Your task to perform on an android device: change notification settings in the gmail app Image 0: 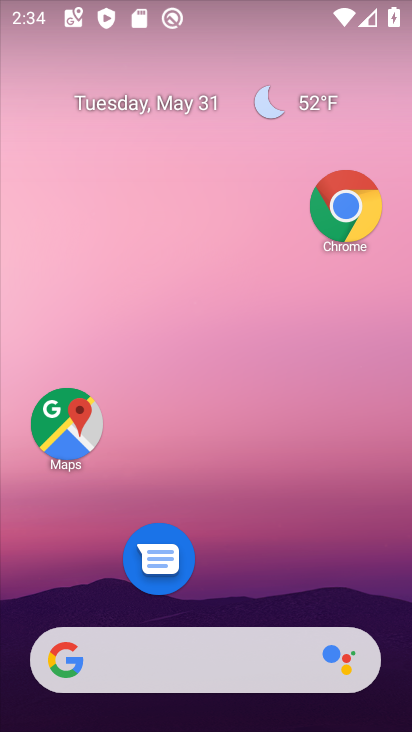
Step 0: drag from (273, 597) to (151, 97)
Your task to perform on an android device: change notification settings in the gmail app Image 1: 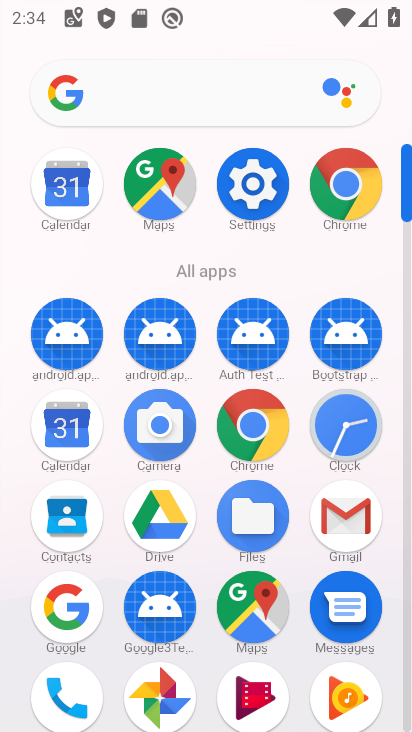
Step 1: click (341, 517)
Your task to perform on an android device: change notification settings in the gmail app Image 2: 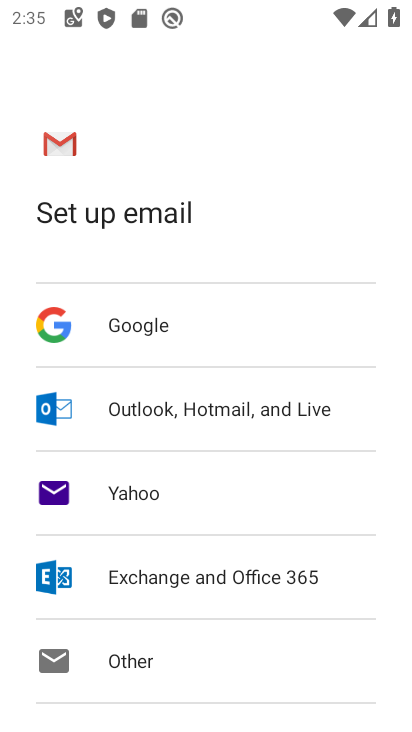
Step 2: click (411, 710)
Your task to perform on an android device: change notification settings in the gmail app Image 3: 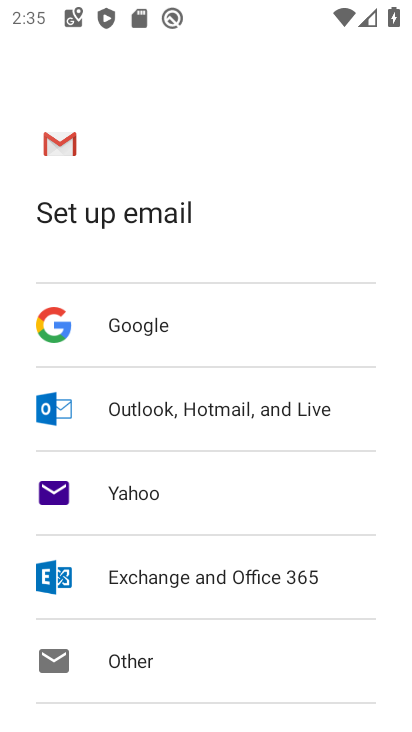
Step 3: press back button
Your task to perform on an android device: change notification settings in the gmail app Image 4: 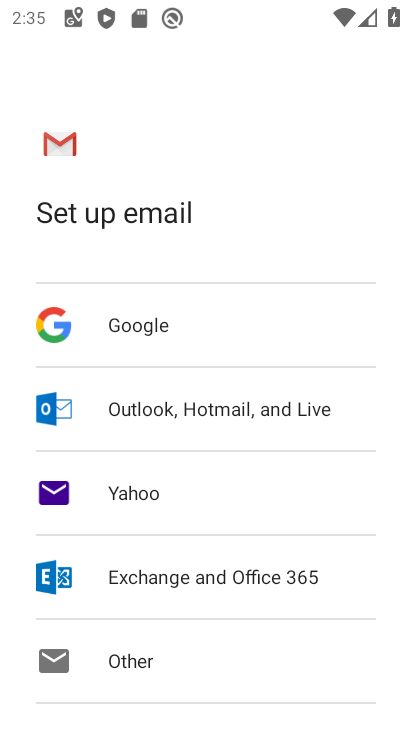
Step 4: drag from (411, 710) to (411, 447)
Your task to perform on an android device: change notification settings in the gmail app Image 5: 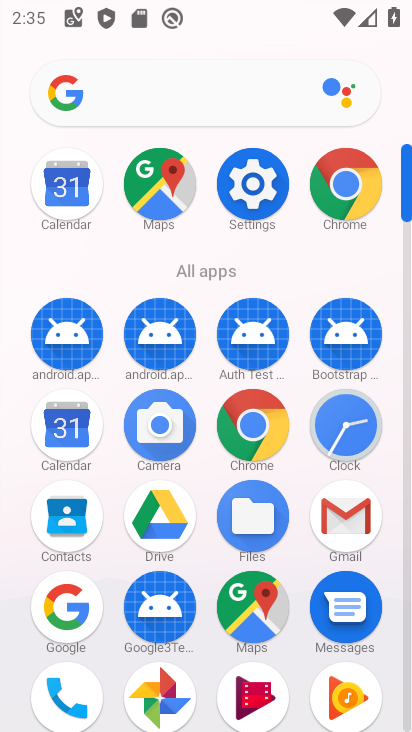
Step 5: click (353, 515)
Your task to perform on an android device: change notification settings in the gmail app Image 6: 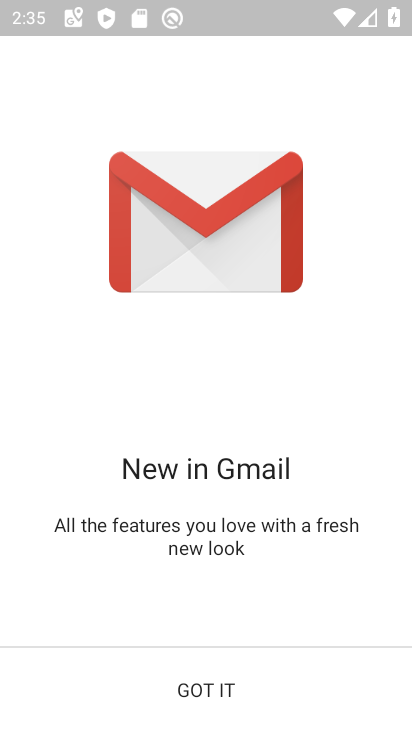
Step 6: click (238, 686)
Your task to perform on an android device: change notification settings in the gmail app Image 7: 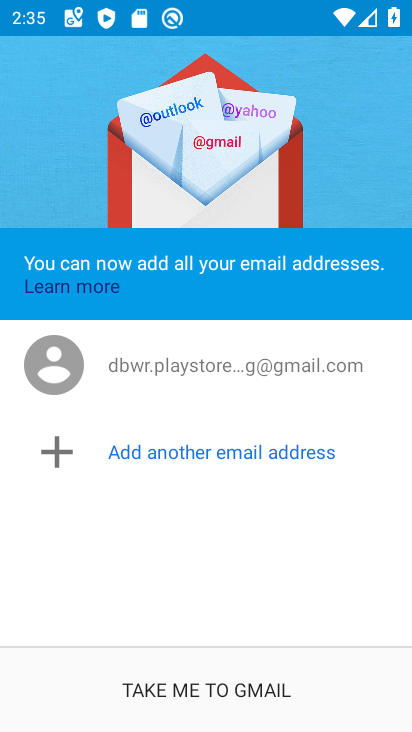
Step 7: click (164, 684)
Your task to perform on an android device: change notification settings in the gmail app Image 8: 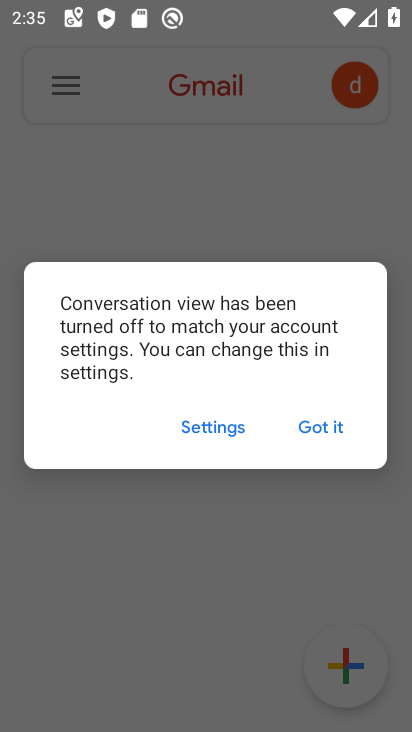
Step 8: click (344, 425)
Your task to perform on an android device: change notification settings in the gmail app Image 9: 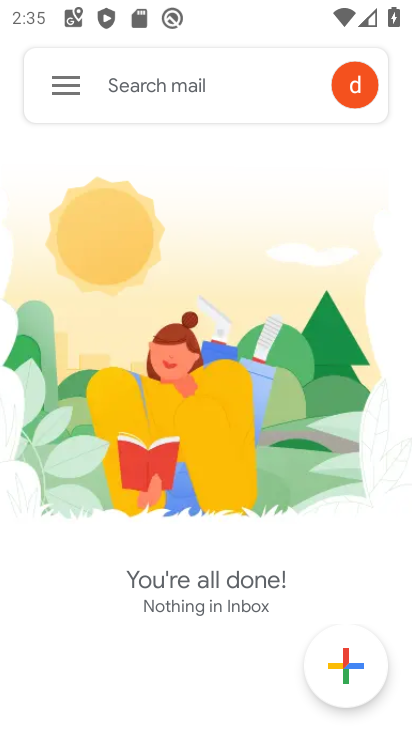
Step 9: click (81, 104)
Your task to perform on an android device: change notification settings in the gmail app Image 10: 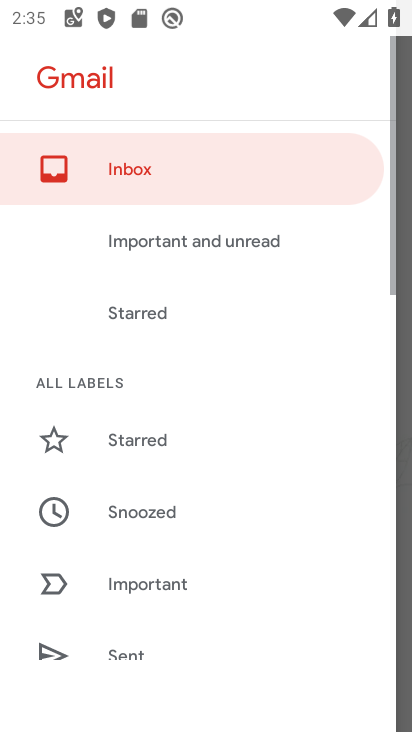
Step 10: drag from (141, 508) to (188, 76)
Your task to perform on an android device: change notification settings in the gmail app Image 11: 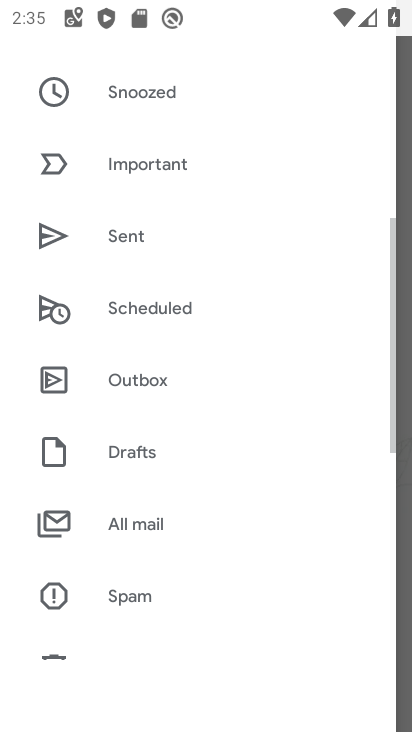
Step 11: drag from (227, 520) to (206, 129)
Your task to perform on an android device: change notification settings in the gmail app Image 12: 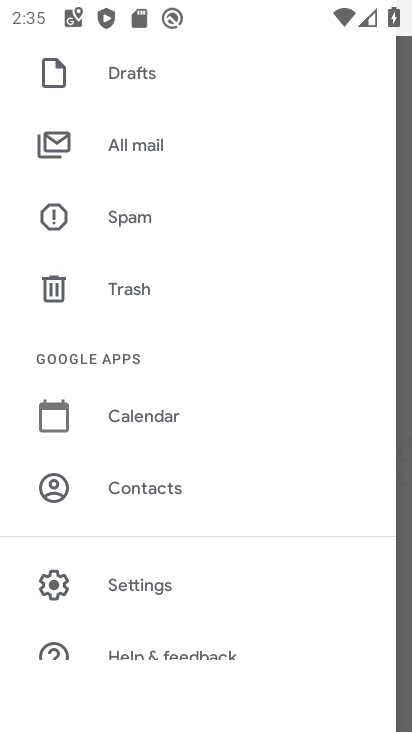
Step 12: click (163, 598)
Your task to perform on an android device: change notification settings in the gmail app Image 13: 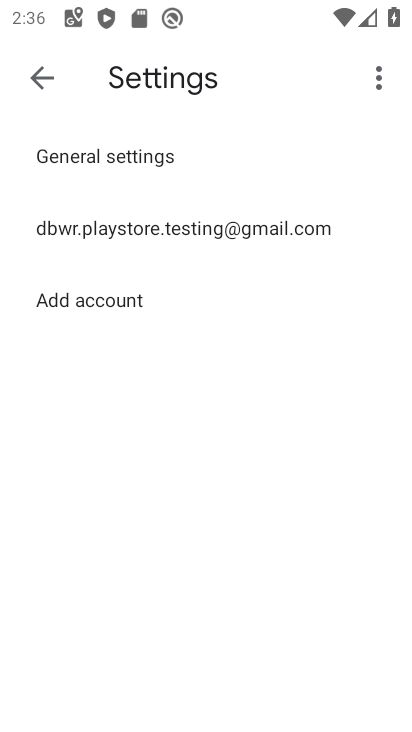
Step 13: click (238, 238)
Your task to perform on an android device: change notification settings in the gmail app Image 14: 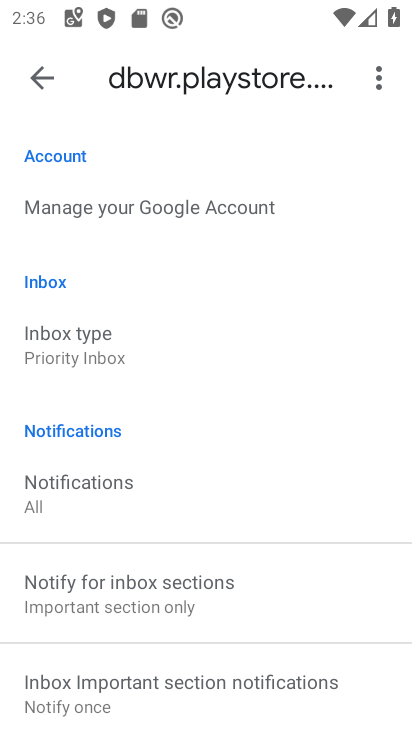
Step 14: drag from (170, 684) to (184, 377)
Your task to perform on an android device: change notification settings in the gmail app Image 15: 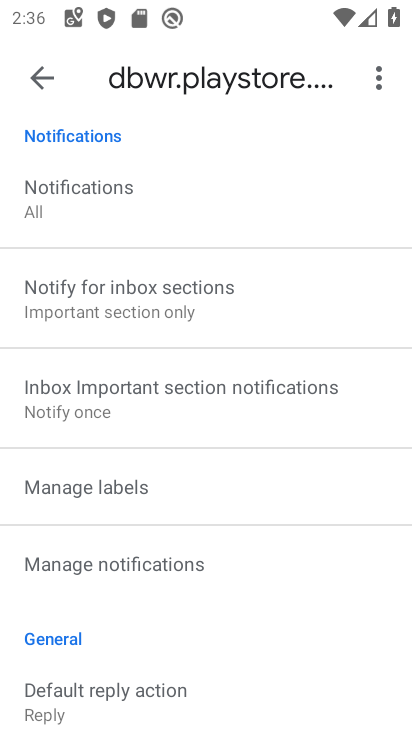
Step 15: click (174, 570)
Your task to perform on an android device: change notification settings in the gmail app Image 16: 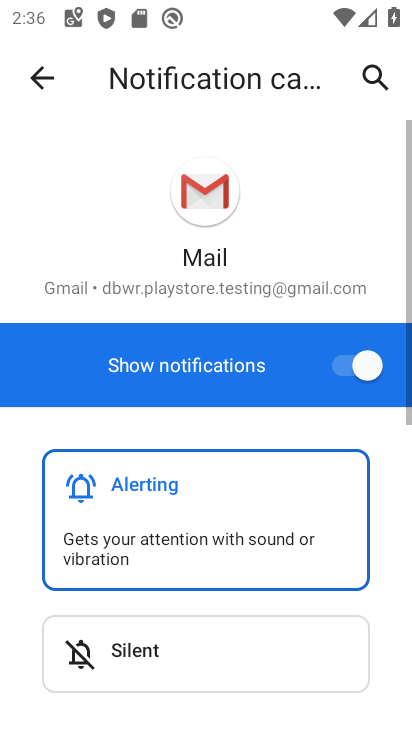
Step 16: click (359, 384)
Your task to perform on an android device: change notification settings in the gmail app Image 17: 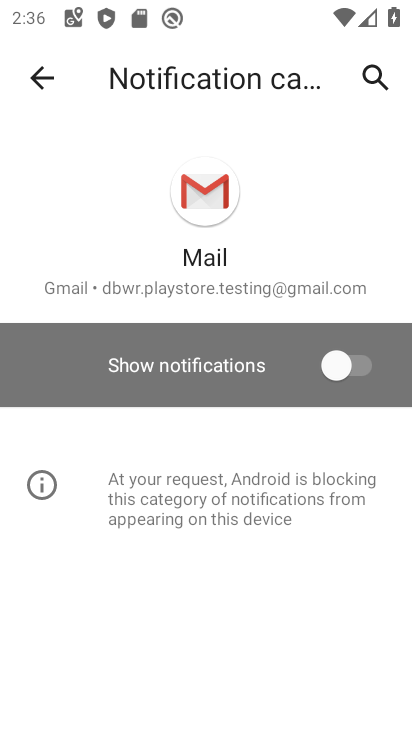
Step 17: task complete